Your task to perform on an android device: toggle notification dots Image 0: 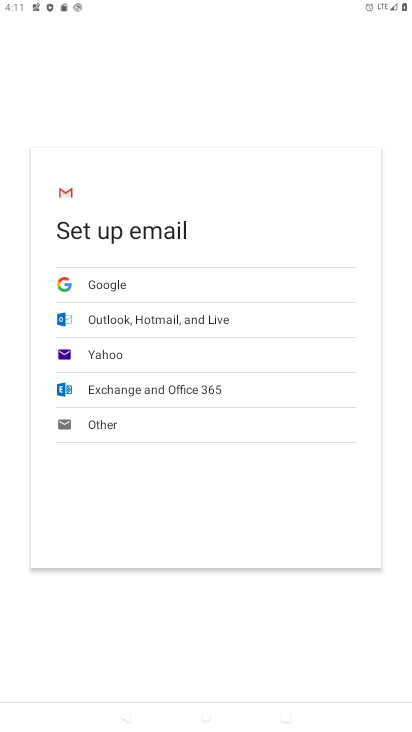
Step 0: press home button
Your task to perform on an android device: toggle notification dots Image 1: 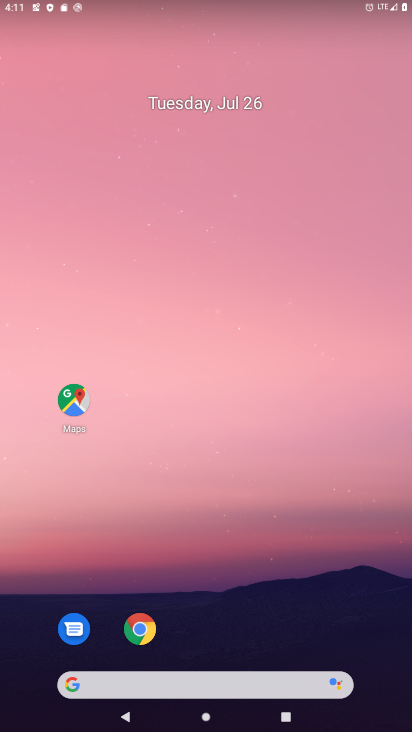
Step 1: drag from (242, 521) to (242, 358)
Your task to perform on an android device: toggle notification dots Image 2: 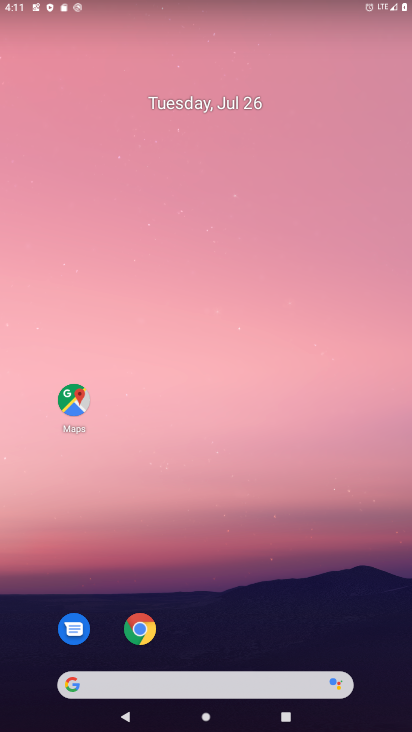
Step 2: drag from (225, 676) to (211, 5)
Your task to perform on an android device: toggle notification dots Image 3: 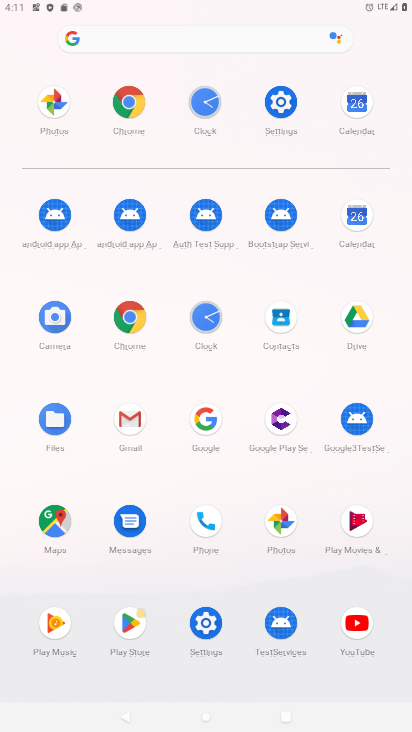
Step 3: click (280, 107)
Your task to perform on an android device: toggle notification dots Image 4: 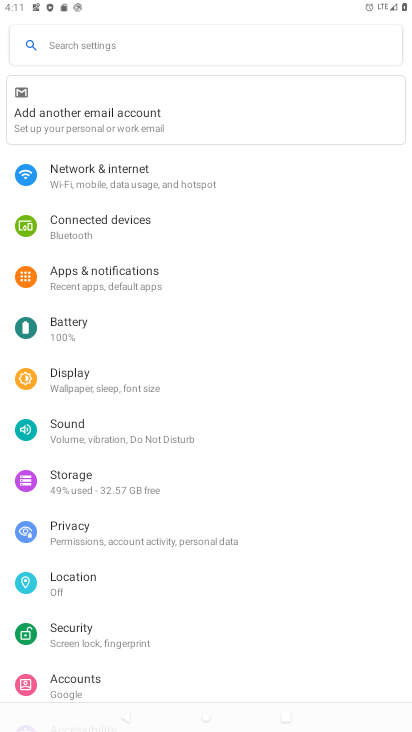
Step 4: click (115, 277)
Your task to perform on an android device: toggle notification dots Image 5: 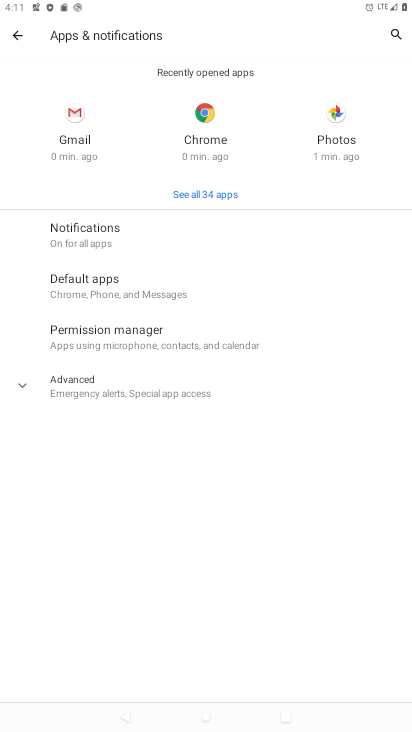
Step 5: click (75, 226)
Your task to perform on an android device: toggle notification dots Image 6: 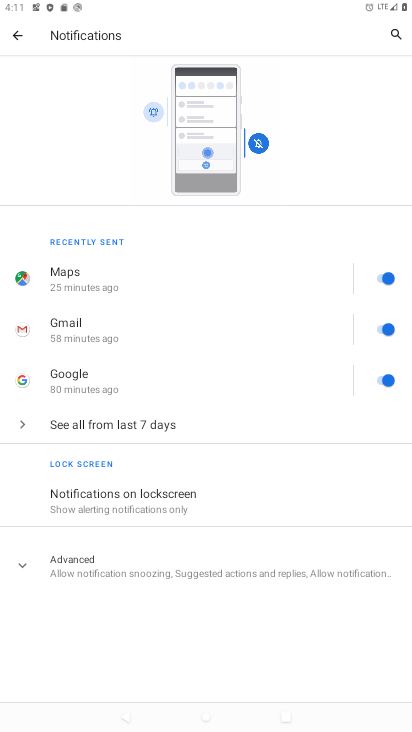
Step 6: click (102, 567)
Your task to perform on an android device: toggle notification dots Image 7: 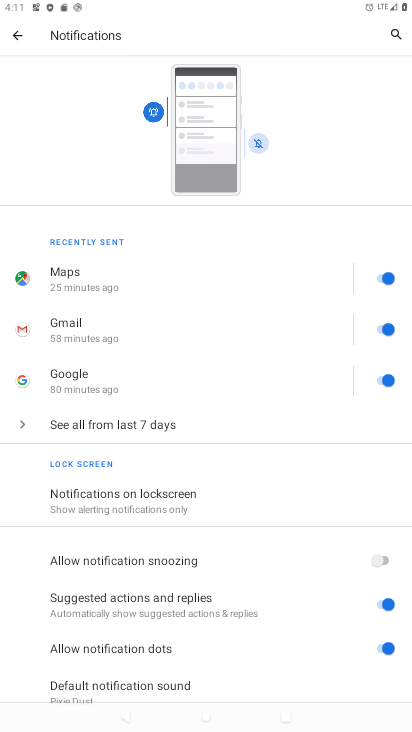
Step 7: click (386, 648)
Your task to perform on an android device: toggle notification dots Image 8: 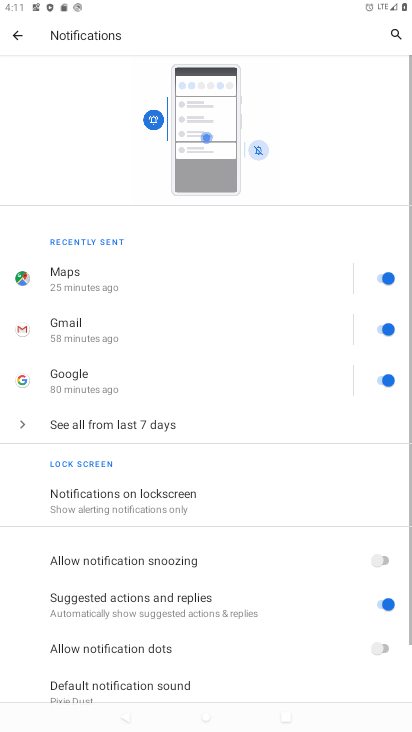
Step 8: task complete